Your task to perform on an android device: Search for pizza restaurants on Maps Image 0: 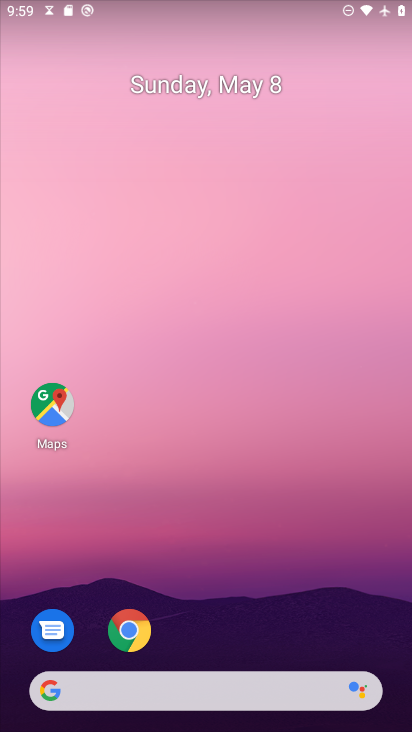
Step 0: press home button
Your task to perform on an android device: Search for pizza restaurants on Maps Image 1: 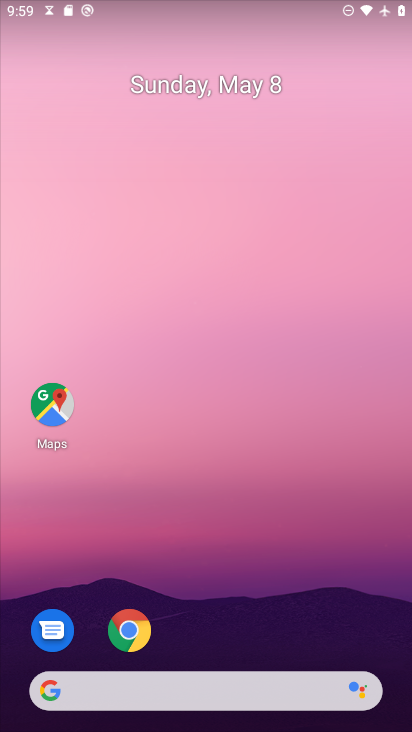
Step 1: click (54, 410)
Your task to perform on an android device: Search for pizza restaurants on Maps Image 2: 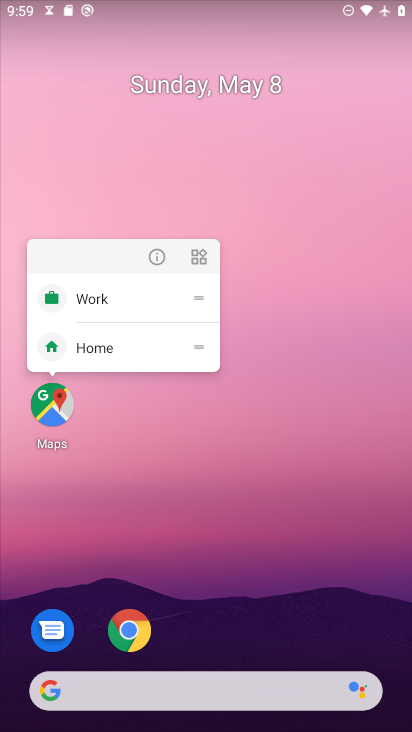
Step 2: click (53, 414)
Your task to perform on an android device: Search for pizza restaurants on Maps Image 3: 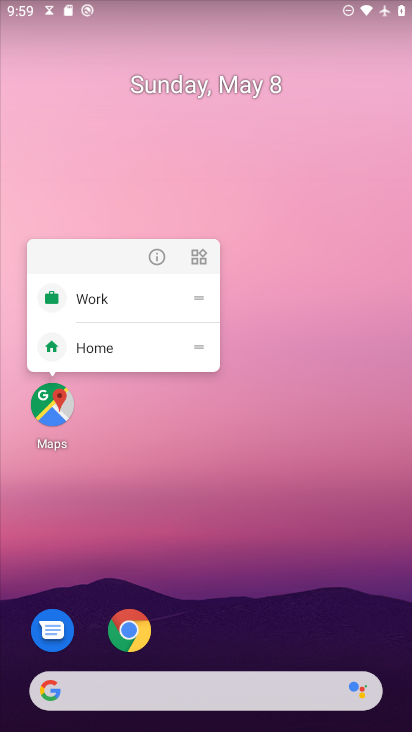
Step 3: click (50, 420)
Your task to perform on an android device: Search for pizza restaurants on Maps Image 4: 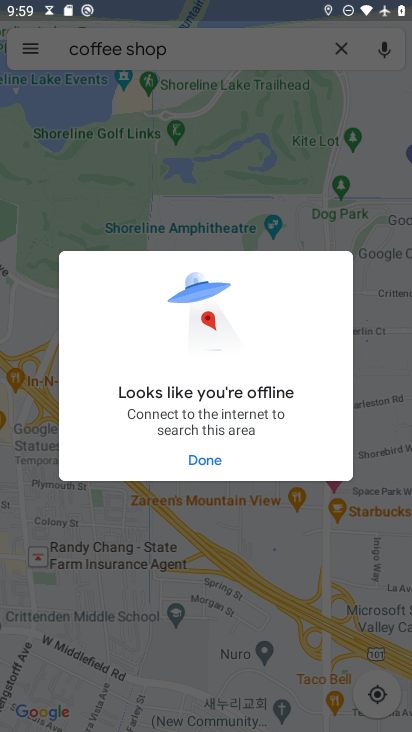
Step 4: click (216, 464)
Your task to perform on an android device: Search for pizza restaurants on Maps Image 5: 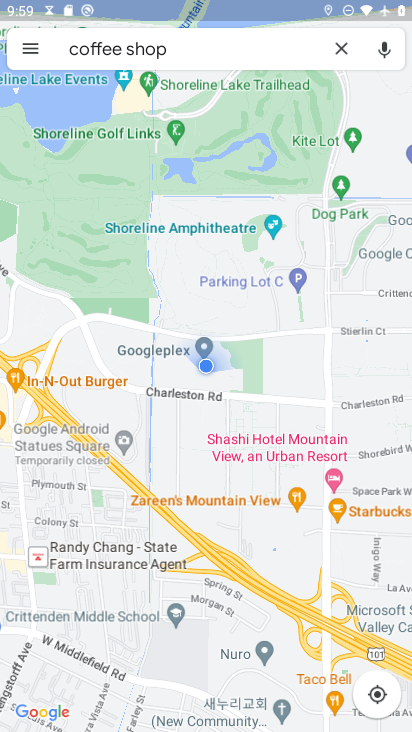
Step 5: click (337, 49)
Your task to perform on an android device: Search for pizza restaurants on Maps Image 6: 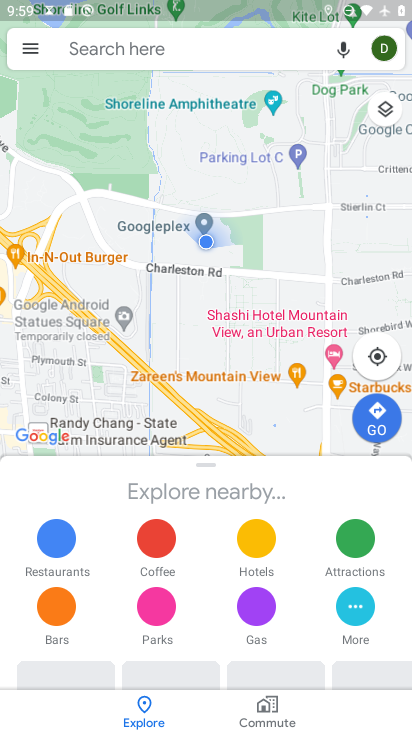
Step 6: click (172, 46)
Your task to perform on an android device: Search for pizza restaurants on Maps Image 7: 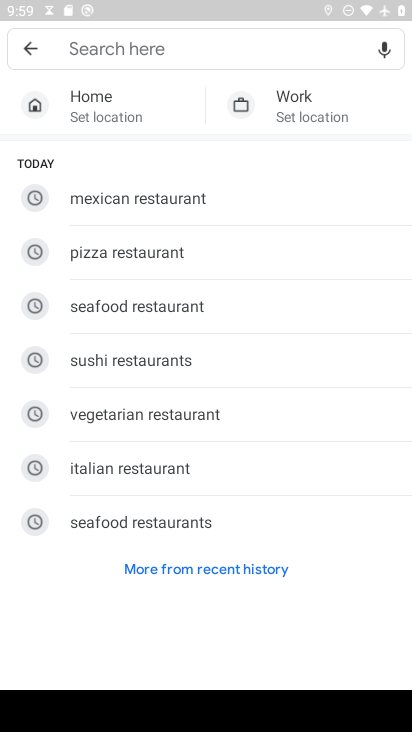
Step 7: click (158, 256)
Your task to perform on an android device: Search for pizza restaurants on Maps Image 8: 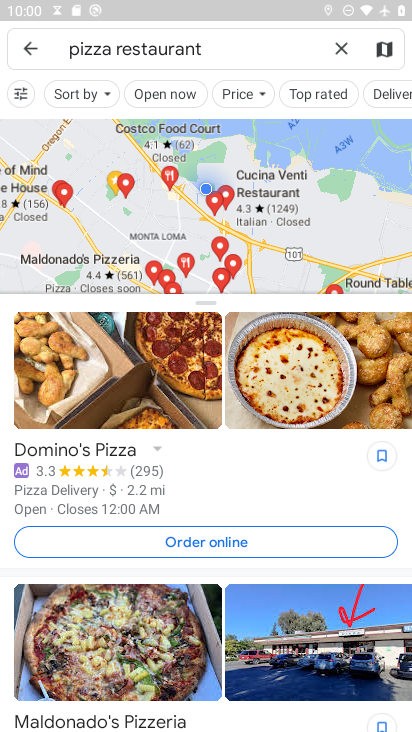
Step 8: task complete